Your task to perform on an android device: turn off picture-in-picture Image 0: 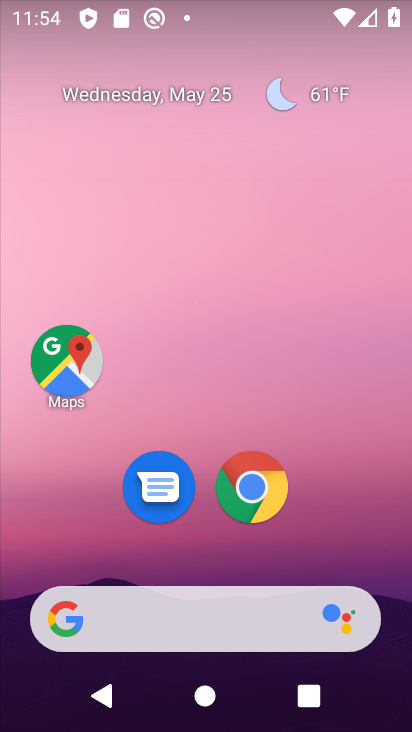
Step 0: drag from (253, 560) to (200, 115)
Your task to perform on an android device: turn off picture-in-picture Image 1: 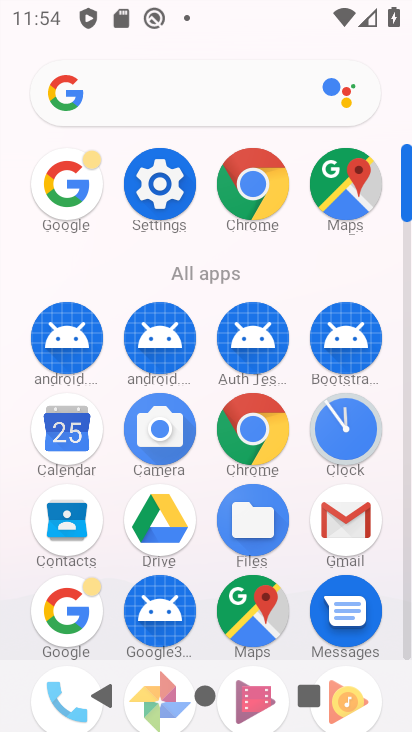
Step 1: click (250, 185)
Your task to perform on an android device: turn off picture-in-picture Image 2: 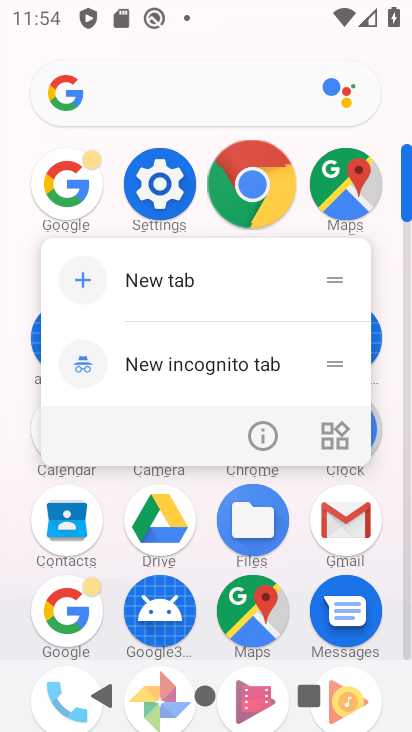
Step 2: click (248, 188)
Your task to perform on an android device: turn off picture-in-picture Image 3: 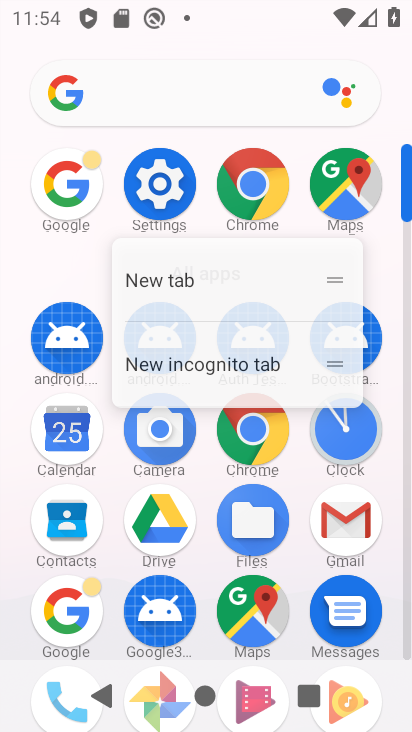
Step 3: click (248, 188)
Your task to perform on an android device: turn off picture-in-picture Image 4: 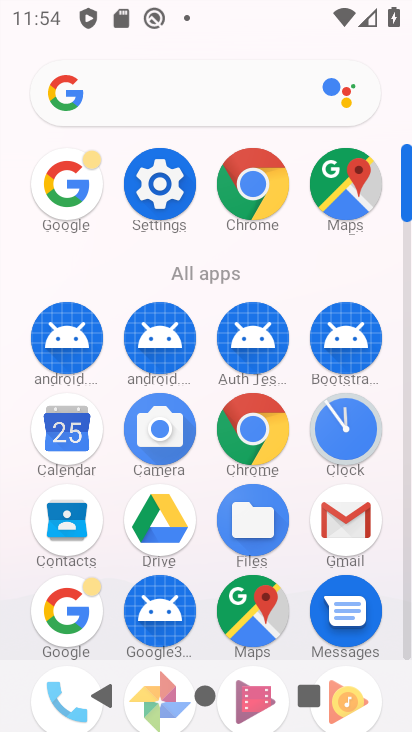
Step 4: click (249, 188)
Your task to perform on an android device: turn off picture-in-picture Image 5: 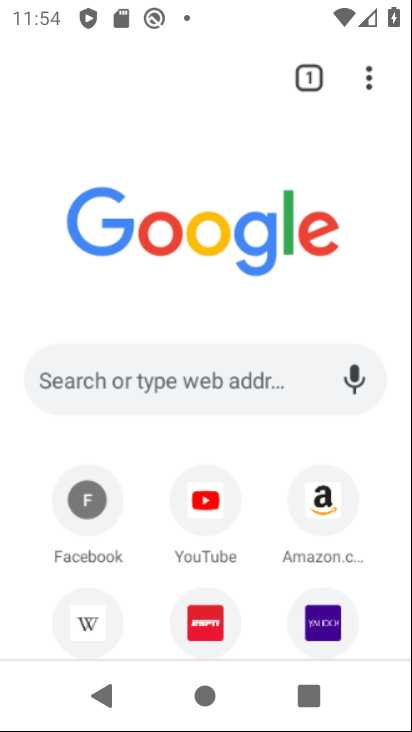
Step 5: click (249, 188)
Your task to perform on an android device: turn off picture-in-picture Image 6: 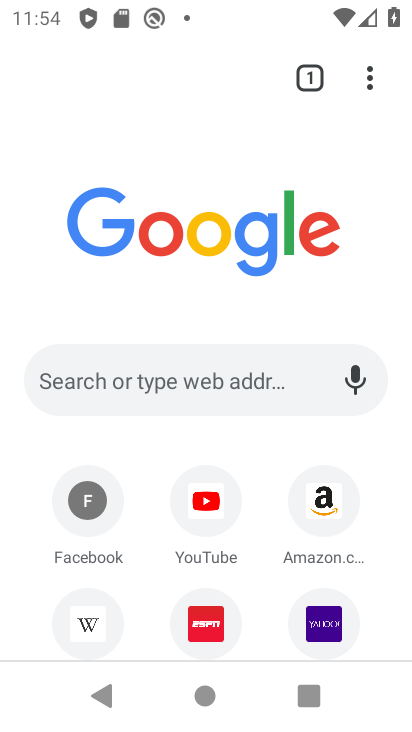
Step 6: press back button
Your task to perform on an android device: turn off picture-in-picture Image 7: 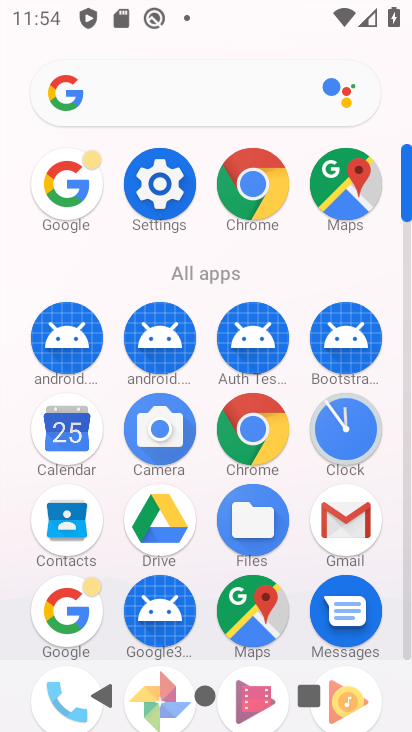
Step 7: click (245, 425)
Your task to perform on an android device: turn off picture-in-picture Image 8: 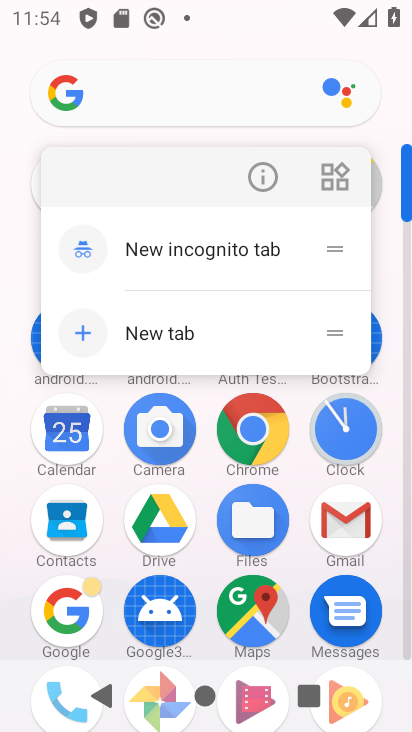
Step 8: click (262, 169)
Your task to perform on an android device: turn off picture-in-picture Image 9: 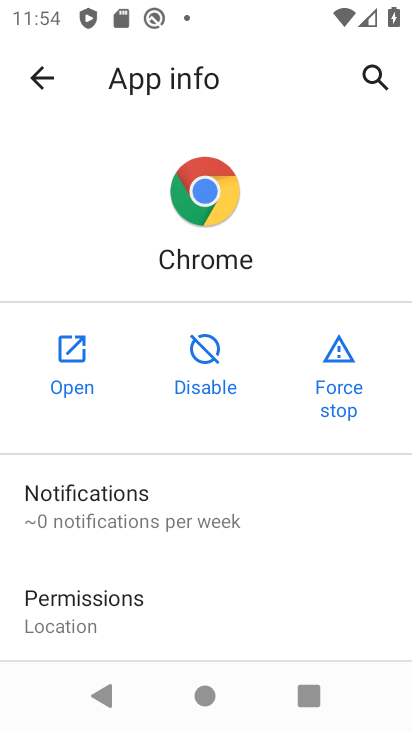
Step 9: drag from (159, 561) to (40, 233)
Your task to perform on an android device: turn off picture-in-picture Image 10: 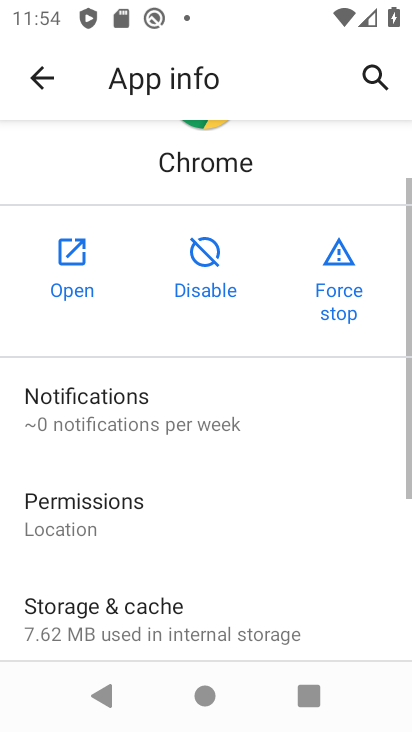
Step 10: drag from (120, 590) to (157, 176)
Your task to perform on an android device: turn off picture-in-picture Image 11: 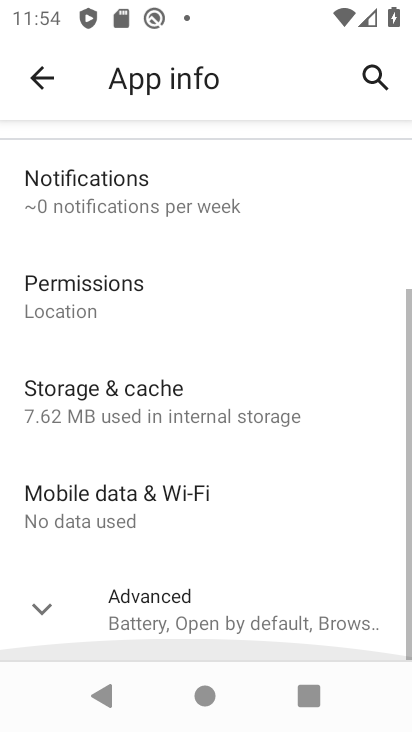
Step 11: drag from (219, 529) to (218, 165)
Your task to perform on an android device: turn off picture-in-picture Image 12: 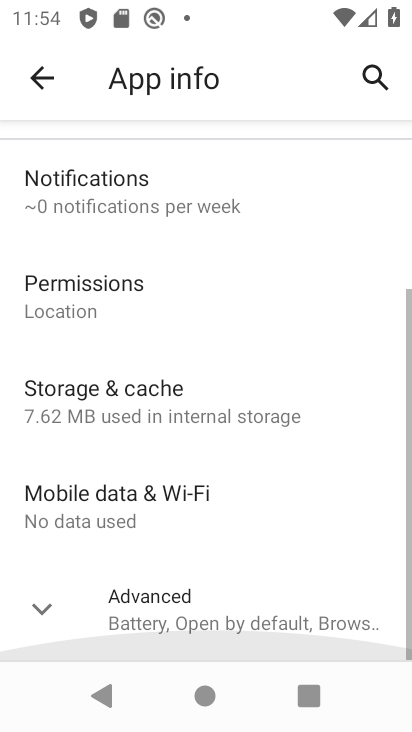
Step 12: drag from (313, 513) to (307, 224)
Your task to perform on an android device: turn off picture-in-picture Image 13: 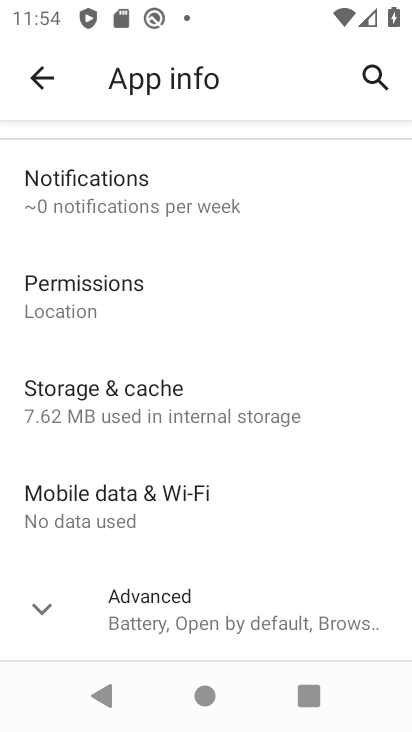
Step 13: click (136, 633)
Your task to perform on an android device: turn off picture-in-picture Image 14: 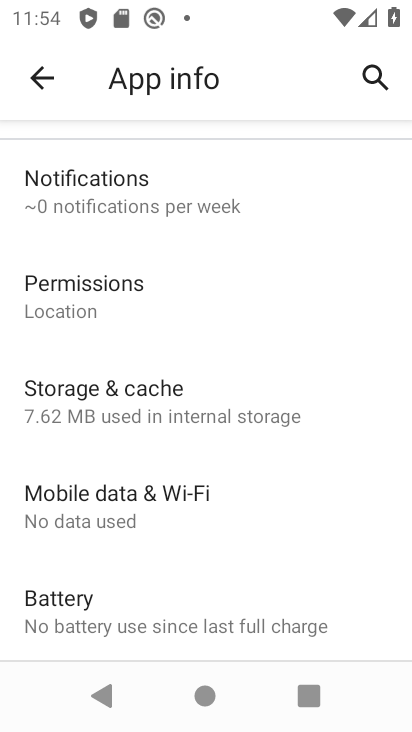
Step 14: drag from (229, 490) to (193, 75)
Your task to perform on an android device: turn off picture-in-picture Image 15: 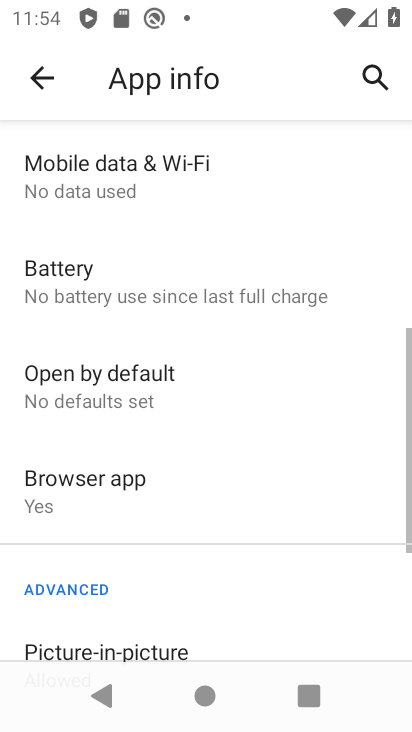
Step 15: drag from (211, 350) to (264, 18)
Your task to perform on an android device: turn off picture-in-picture Image 16: 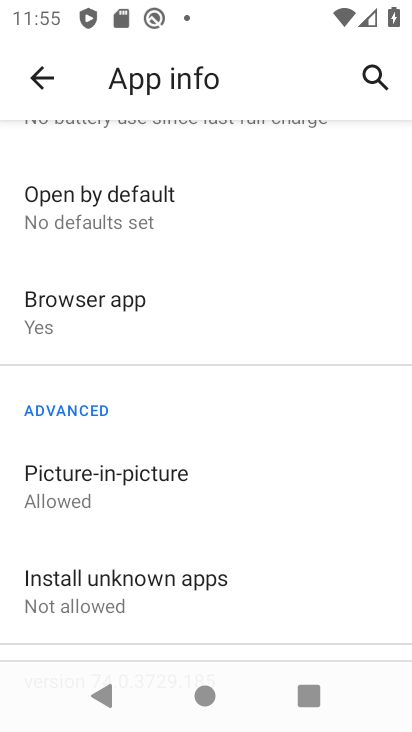
Step 16: click (77, 482)
Your task to perform on an android device: turn off picture-in-picture Image 17: 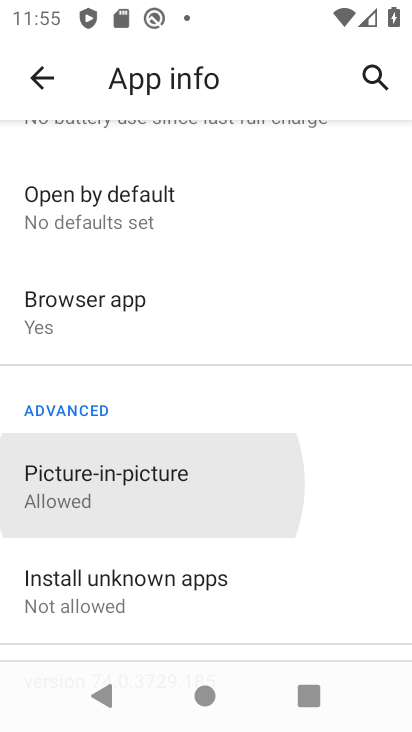
Step 17: click (76, 482)
Your task to perform on an android device: turn off picture-in-picture Image 18: 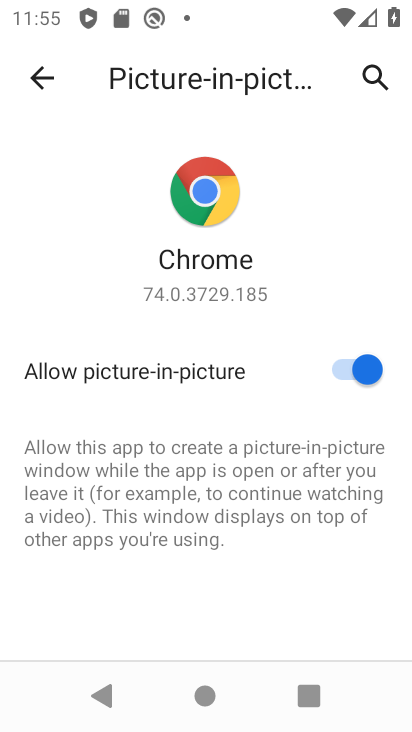
Step 18: click (366, 373)
Your task to perform on an android device: turn off picture-in-picture Image 19: 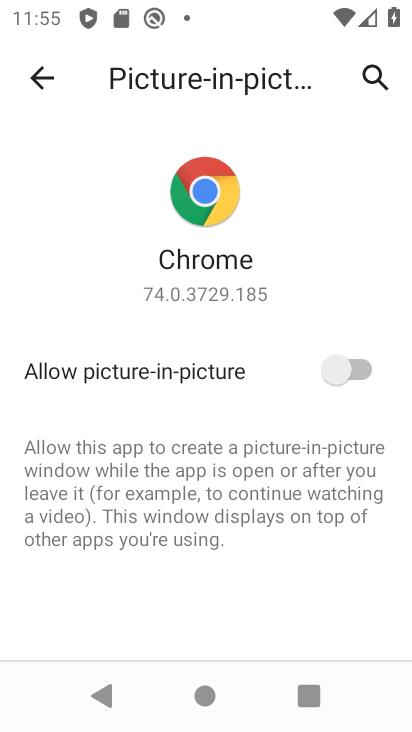
Step 19: task complete